Your task to perform on an android device: Open Amazon Image 0: 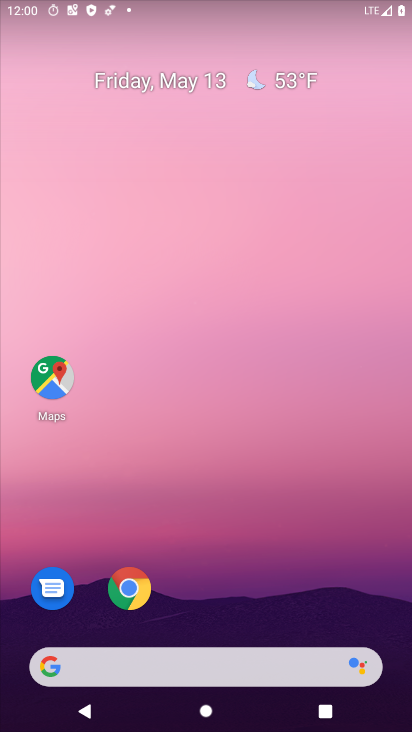
Step 0: drag from (257, 465) to (252, 208)
Your task to perform on an android device: Open Amazon Image 1: 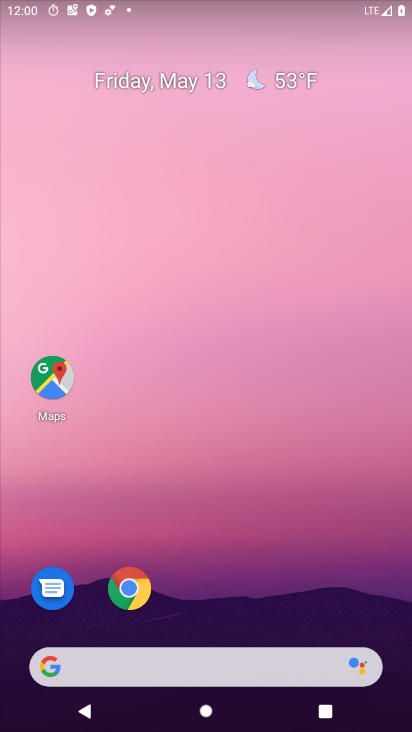
Step 1: drag from (208, 561) to (213, 231)
Your task to perform on an android device: Open Amazon Image 2: 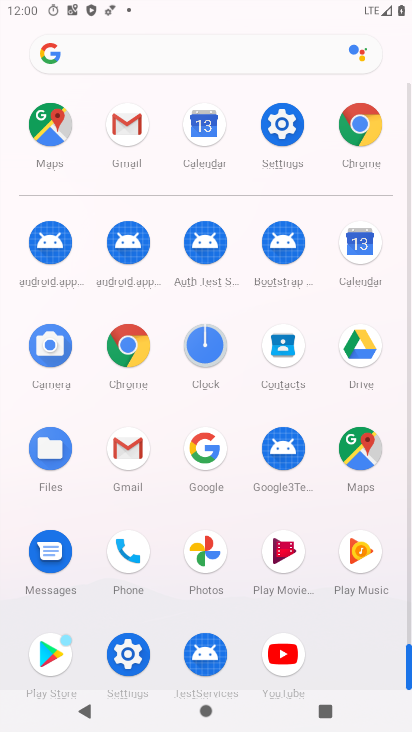
Step 2: click (369, 121)
Your task to perform on an android device: Open Amazon Image 3: 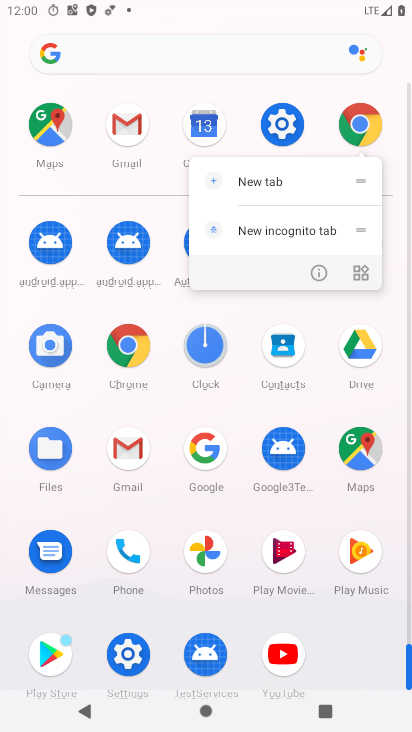
Step 3: click (369, 121)
Your task to perform on an android device: Open Amazon Image 4: 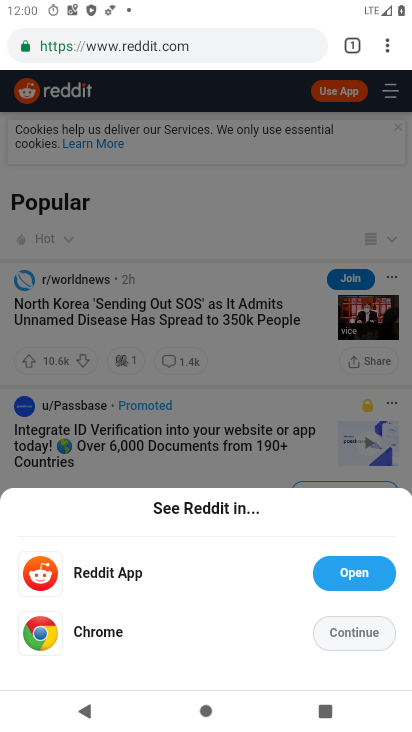
Step 4: click (248, 52)
Your task to perform on an android device: Open Amazon Image 5: 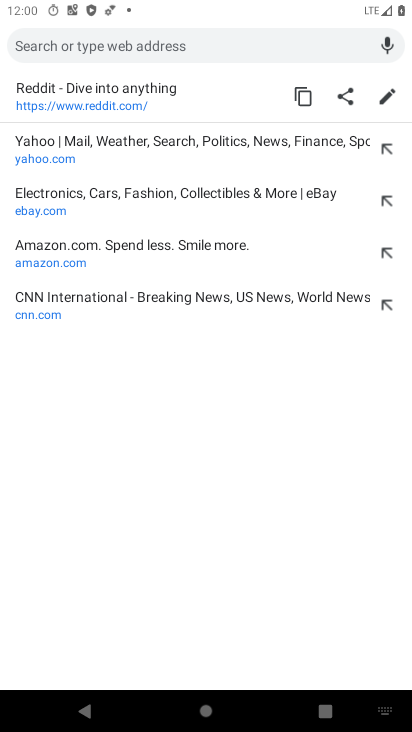
Step 5: type "amazon"
Your task to perform on an android device: Open Amazon Image 6: 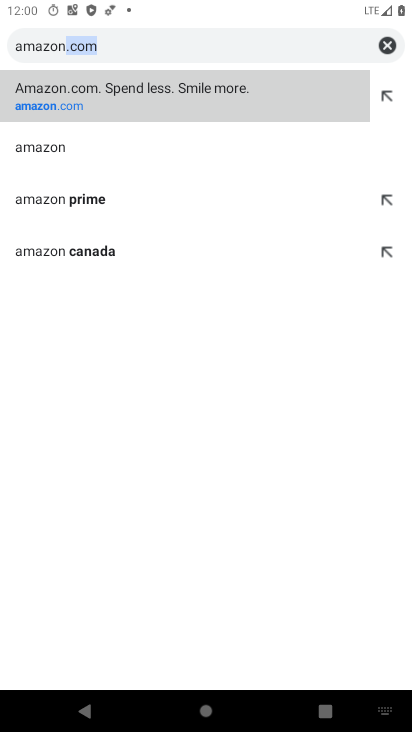
Step 6: click (66, 101)
Your task to perform on an android device: Open Amazon Image 7: 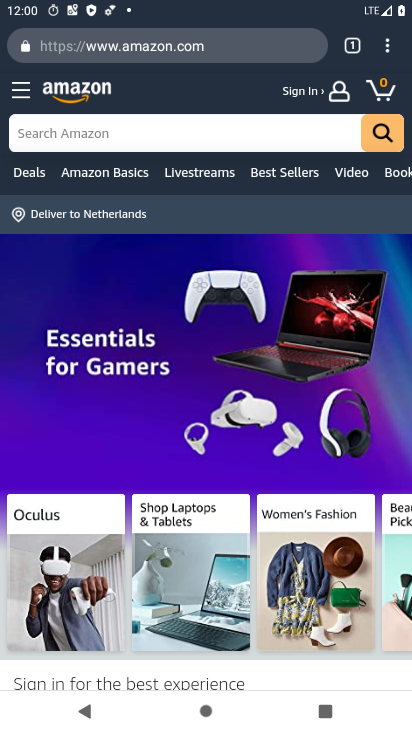
Step 7: task complete